Your task to perform on an android device: open app "Clock" Image 0: 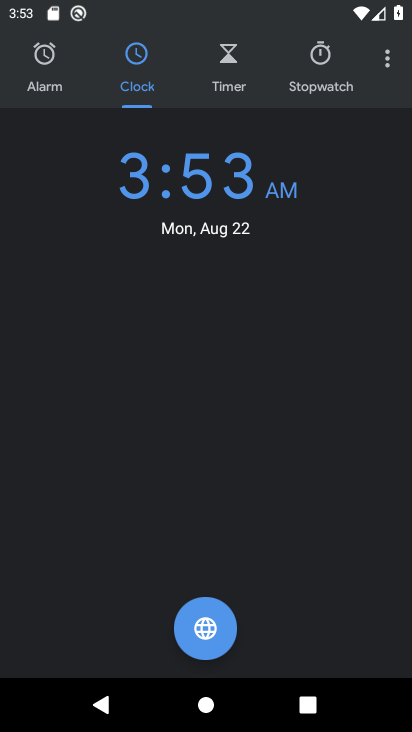
Step 0: press home button
Your task to perform on an android device: open app "Clock" Image 1: 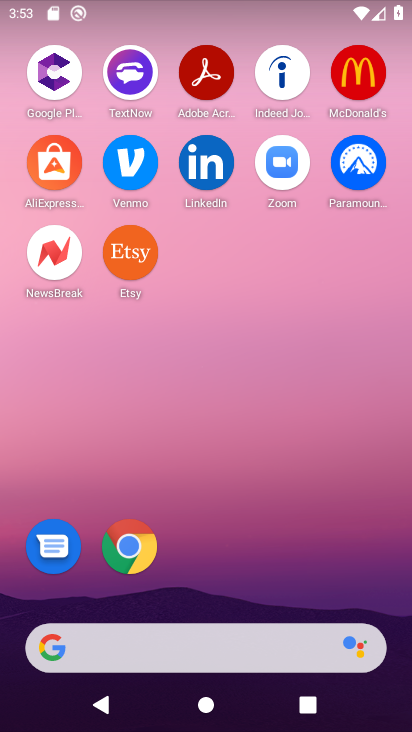
Step 1: drag from (353, 592) to (311, 133)
Your task to perform on an android device: open app "Clock" Image 2: 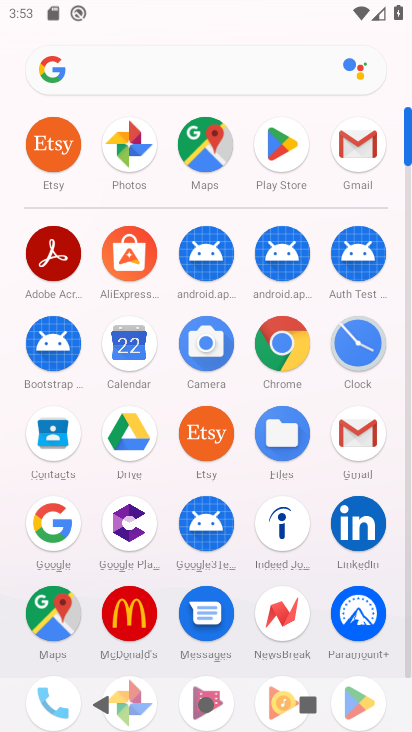
Step 2: click (357, 340)
Your task to perform on an android device: open app "Clock" Image 3: 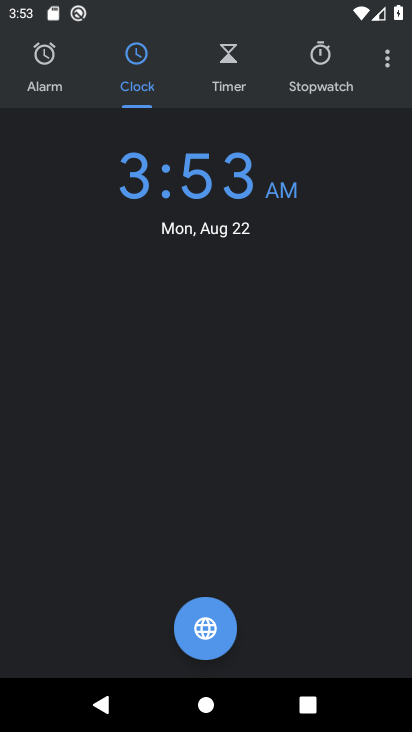
Step 3: task complete